Your task to perform on an android device: Go to battery settings Image 0: 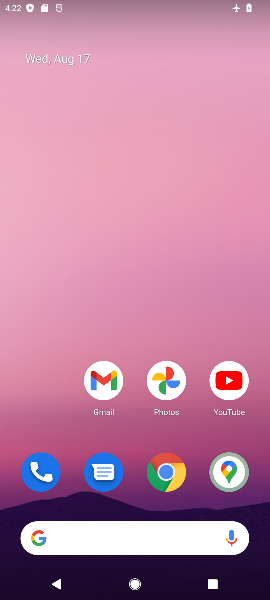
Step 0: drag from (132, 422) to (142, 142)
Your task to perform on an android device: Go to battery settings Image 1: 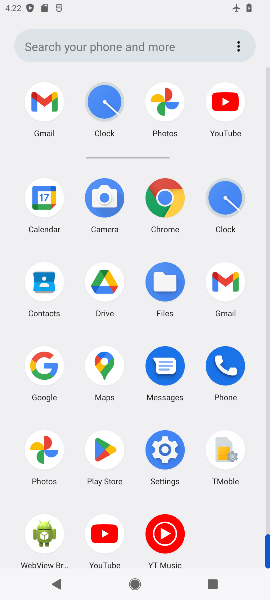
Step 1: click (169, 449)
Your task to perform on an android device: Go to battery settings Image 2: 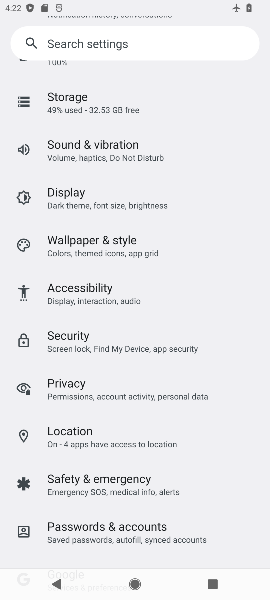
Step 2: drag from (124, 276) to (124, 485)
Your task to perform on an android device: Go to battery settings Image 3: 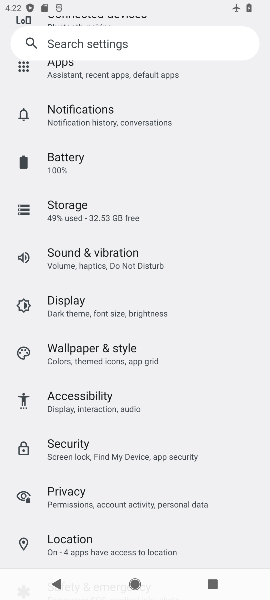
Step 3: click (96, 167)
Your task to perform on an android device: Go to battery settings Image 4: 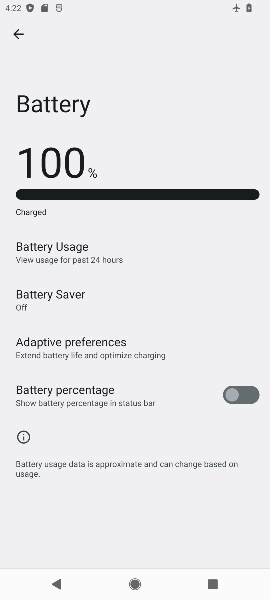
Step 4: task complete